Your task to perform on an android device: Open Google Chrome Image 0: 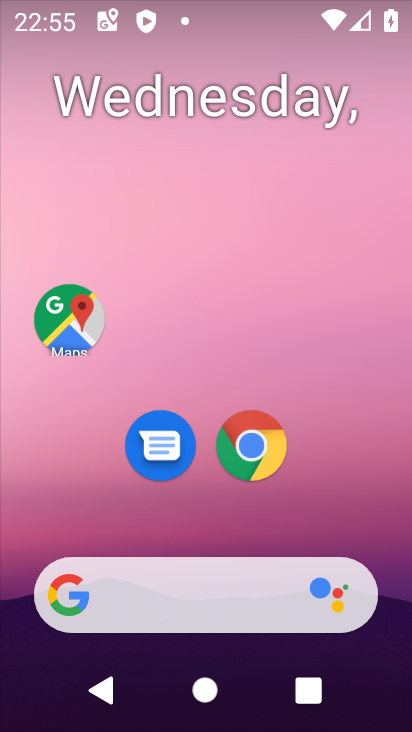
Step 0: drag from (306, 506) to (290, 211)
Your task to perform on an android device: Open Google Chrome Image 1: 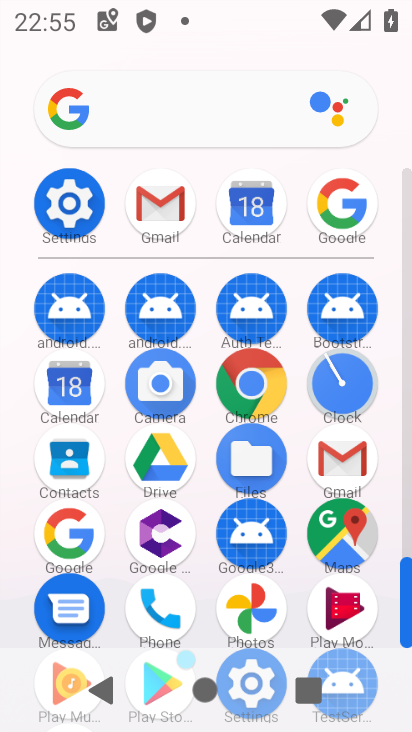
Step 1: click (63, 527)
Your task to perform on an android device: Open Google Chrome Image 2: 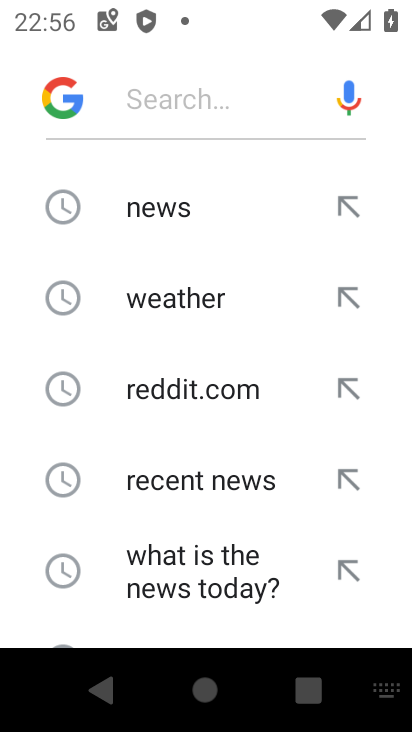
Step 2: task complete